Your task to perform on an android device: Go to Android settings Image 0: 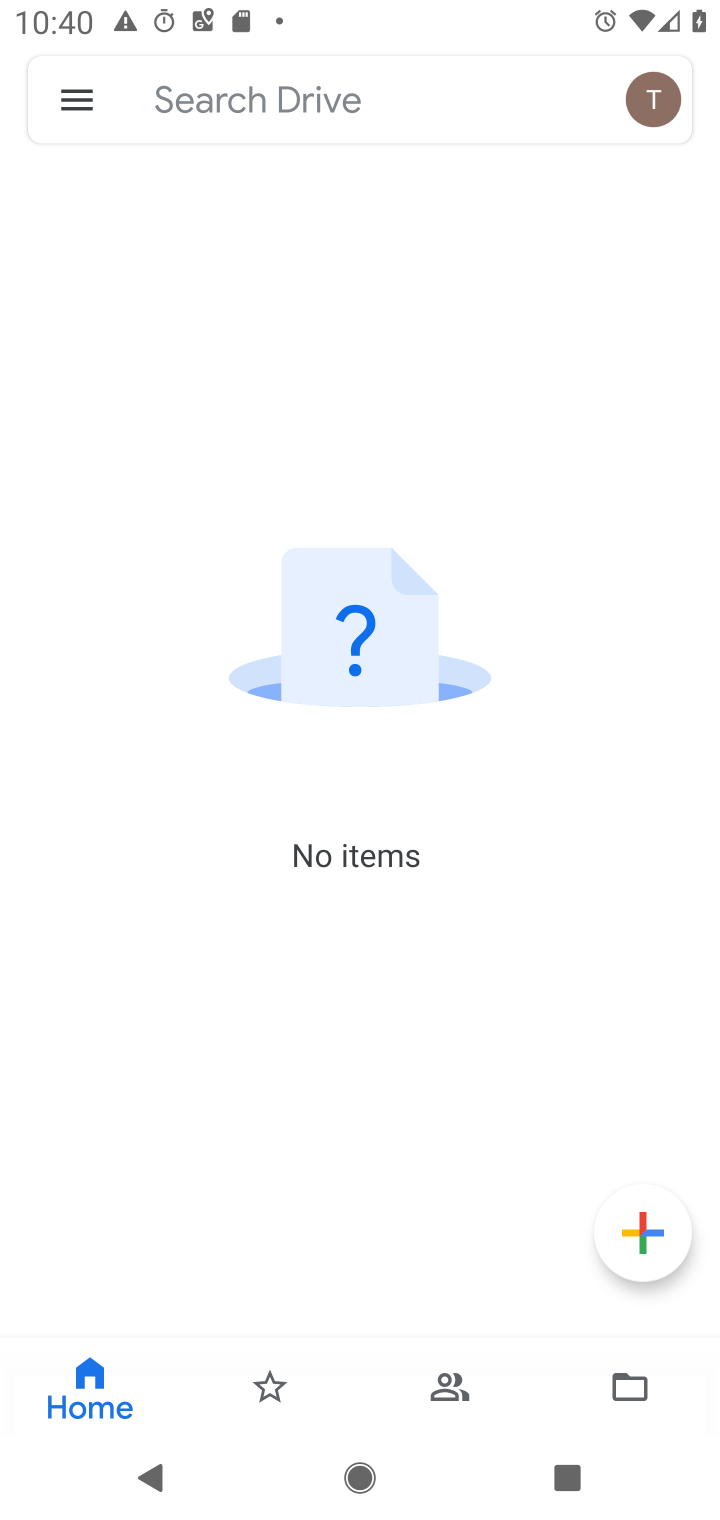
Step 0: press home button
Your task to perform on an android device: Go to Android settings Image 1: 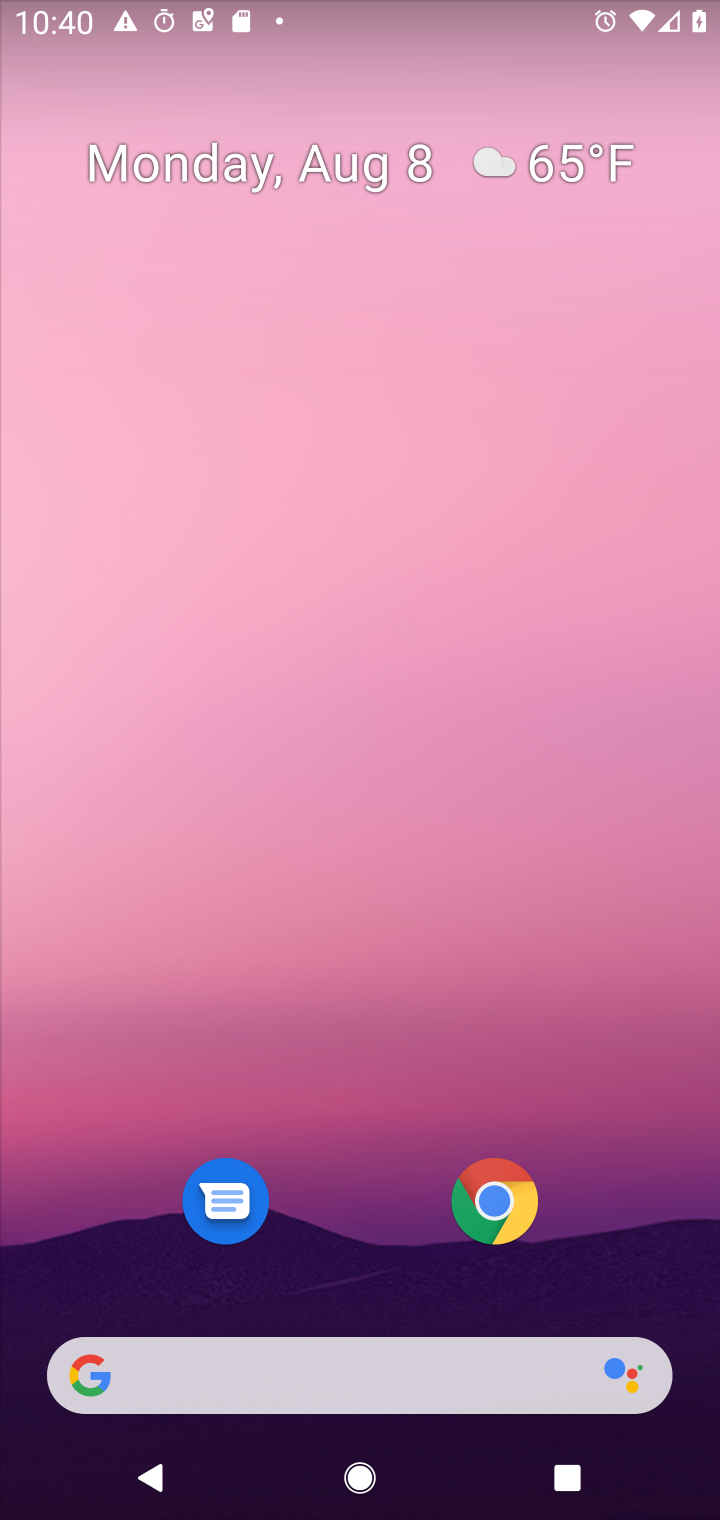
Step 1: drag from (392, 1245) to (312, 355)
Your task to perform on an android device: Go to Android settings Image 2: 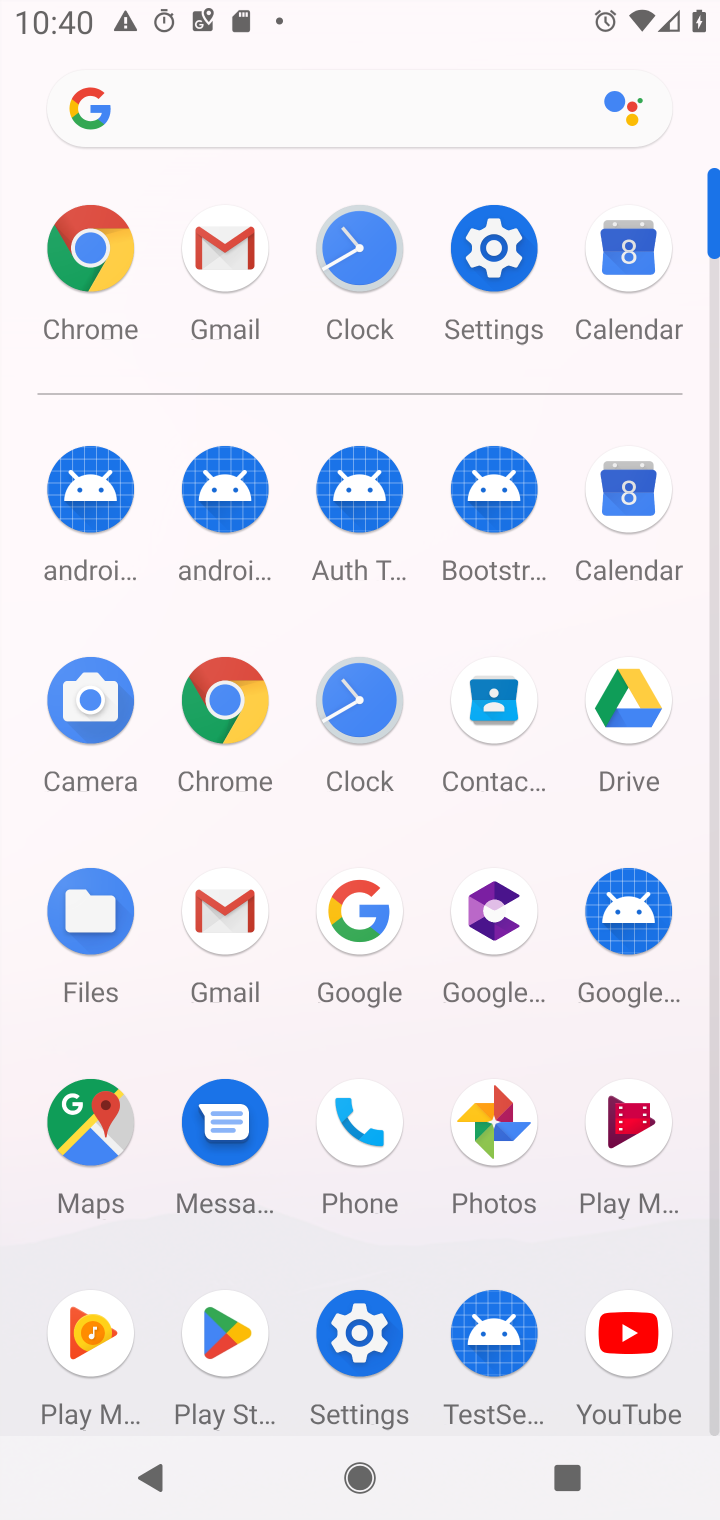
Step 2: click (503, 236)
Your task to perform on an android device: Go to Android settings Image 3: 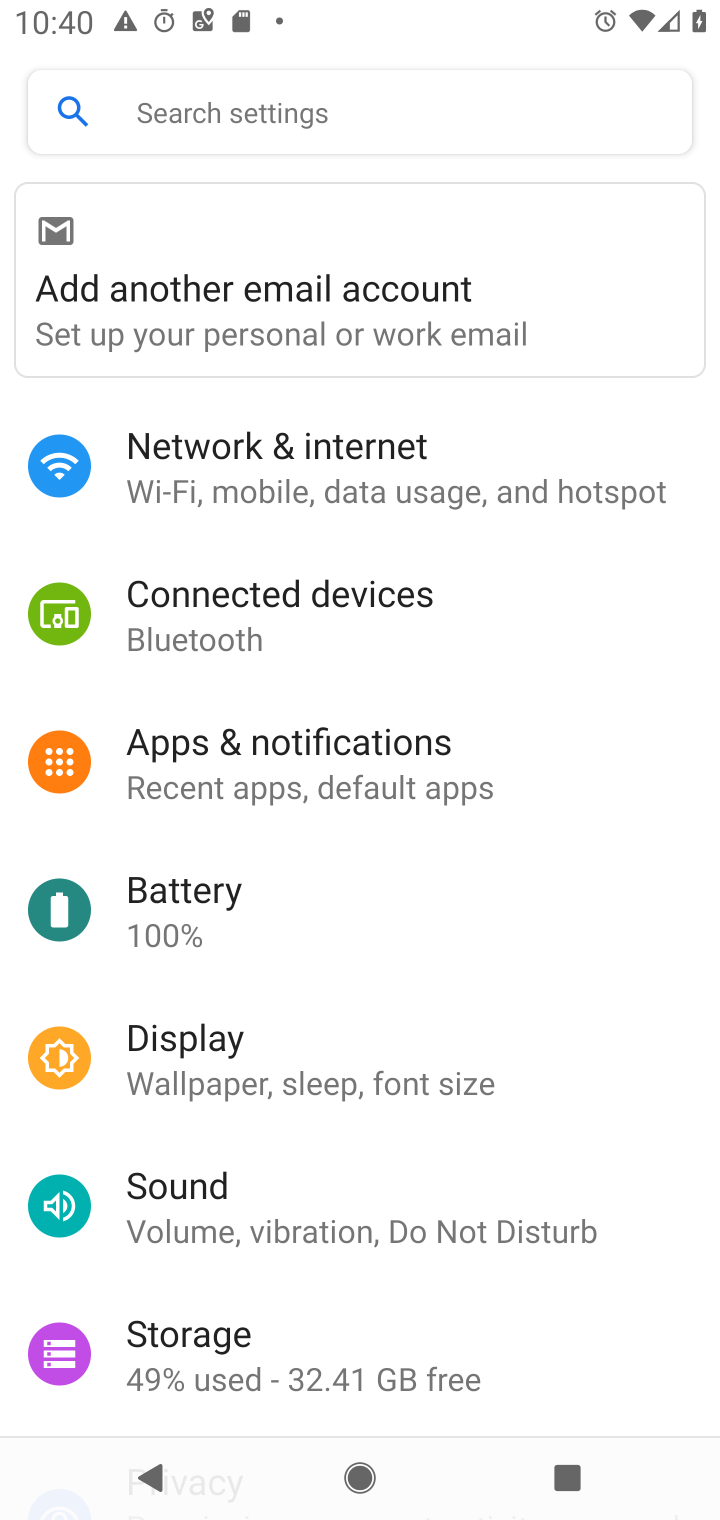
Step 3: drag from (564, 954) to (580, 726)
Your task to perform on an android device: Go to Android settings Image 4: 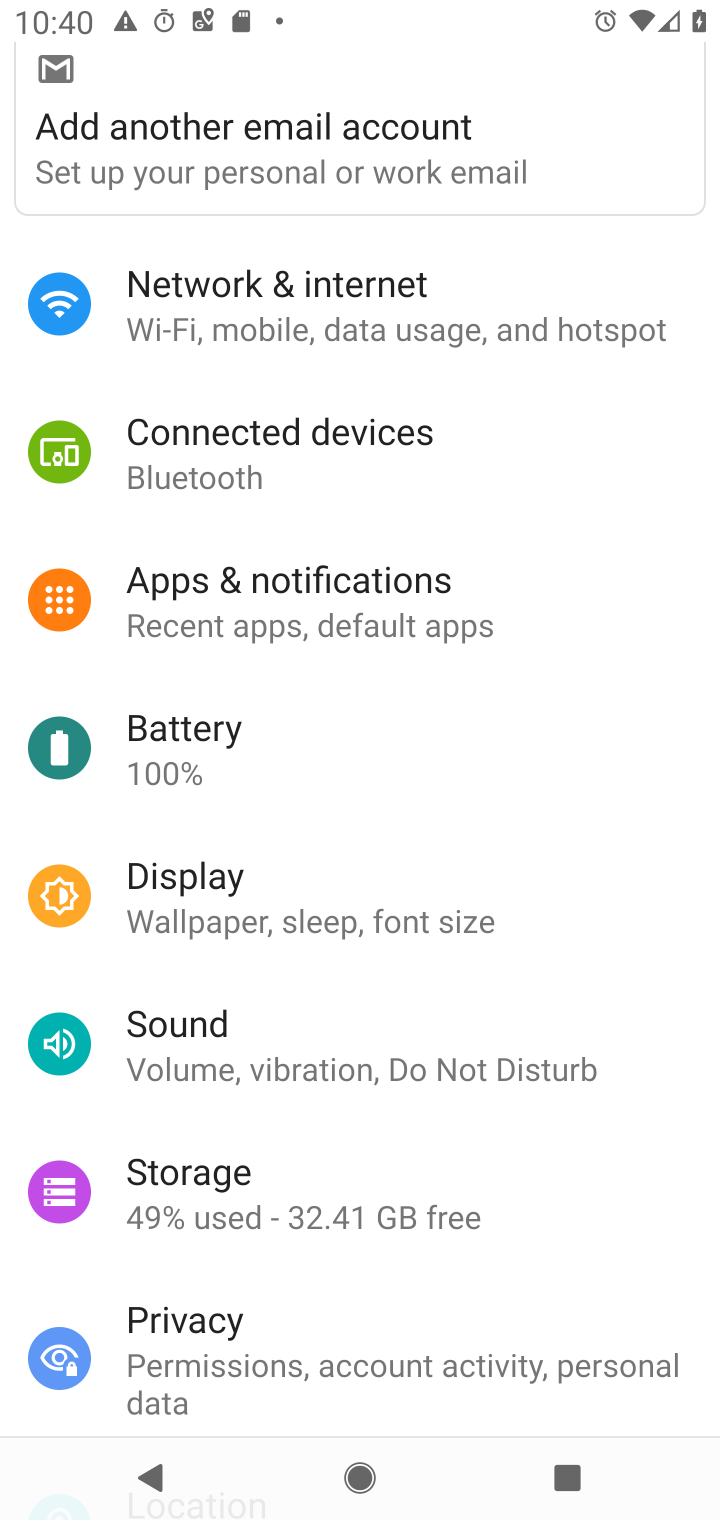
Step 4: drag from (589, 1106) to (610, 729)
Your task to perform on an android device: Go to Android settings Image 5: 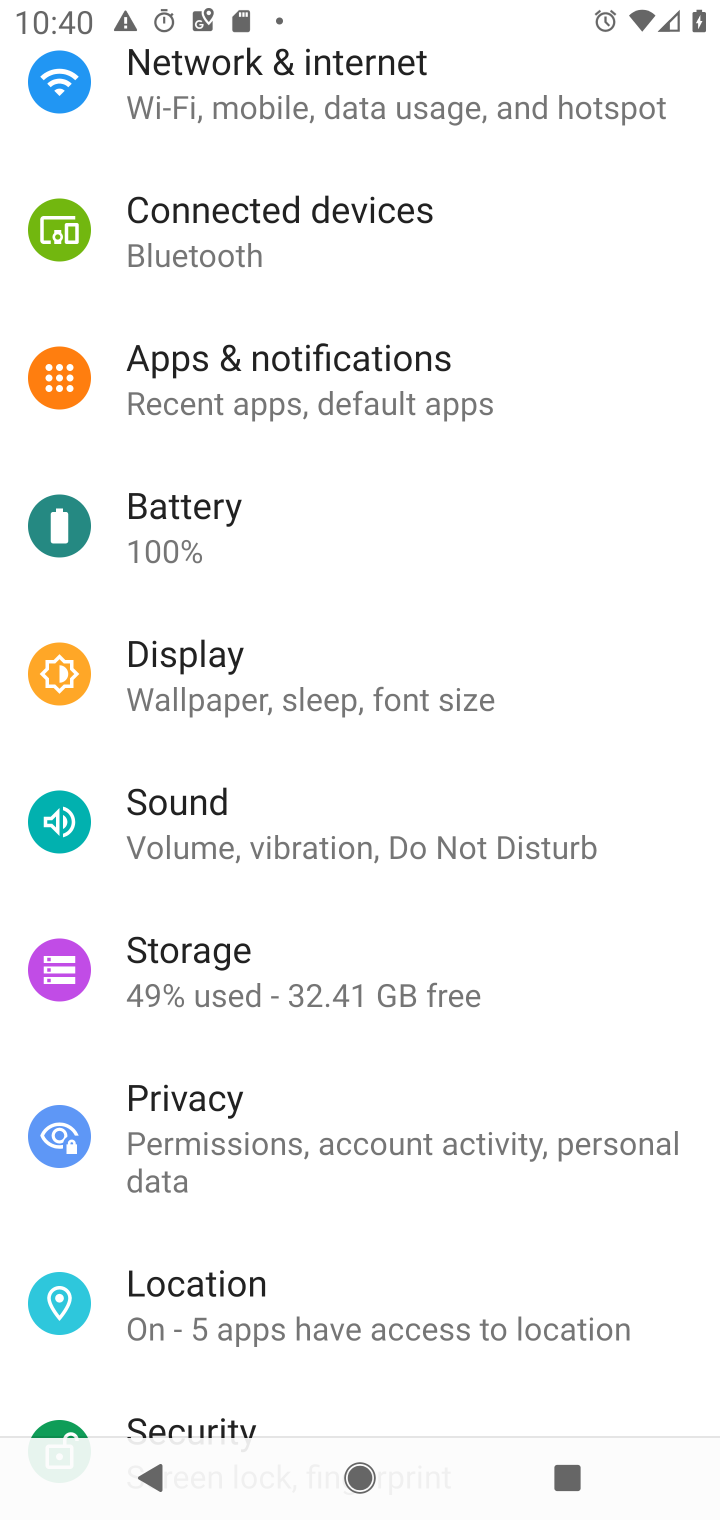
Step 5: drag from (584, 1063) to (603, 668)
Your task to perform on an android device: Go to Android settings Image 6: 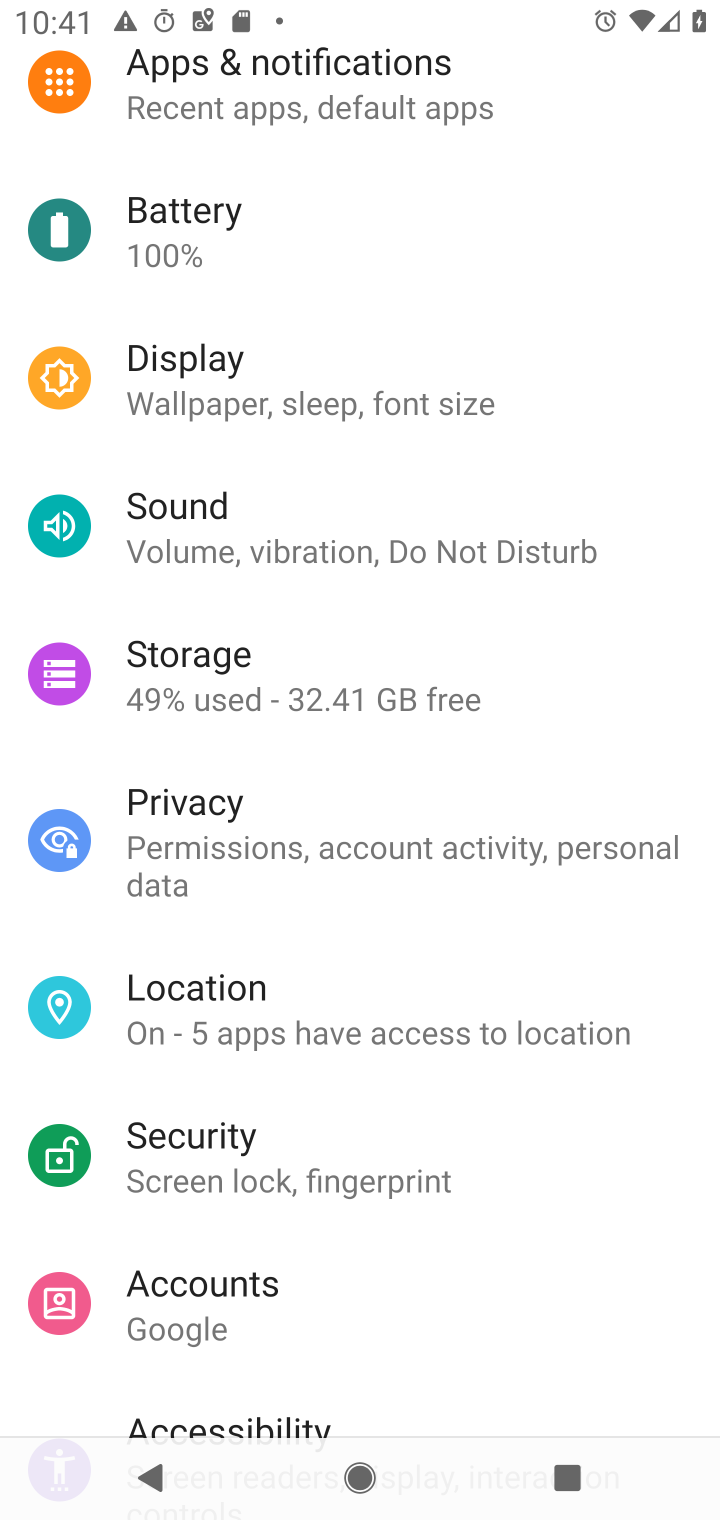
Step 6: drag from (568, 1091) to (590, 716)
Your task to perform on an android device: Go to Android settings Image 7: 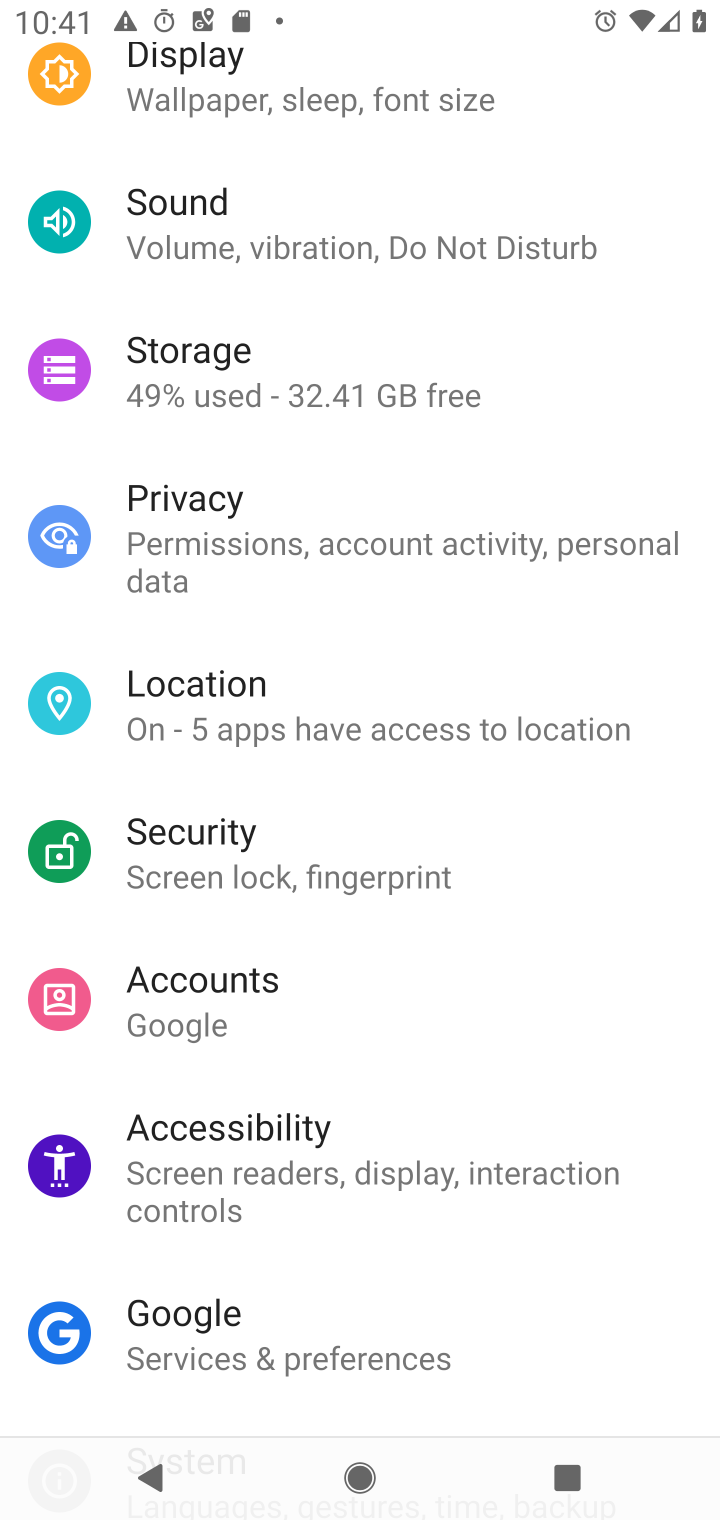
Step 7: drag from (541, 1181) to (578, 553)
Your task to perform on an android device: Go to Android settings Image 8: 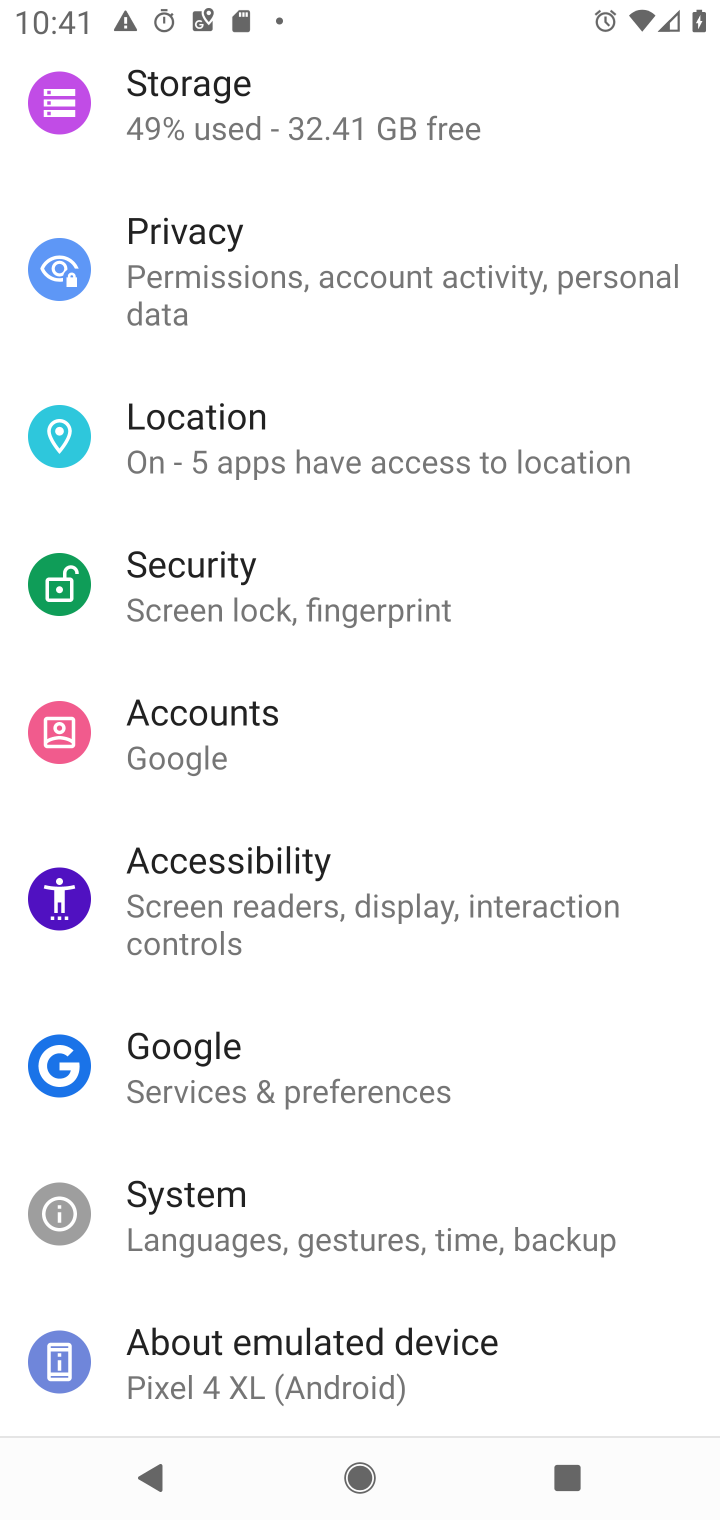
Step 8: click (554, 1214)
Your task to perform on an android device: Go to Android settings Image 9: 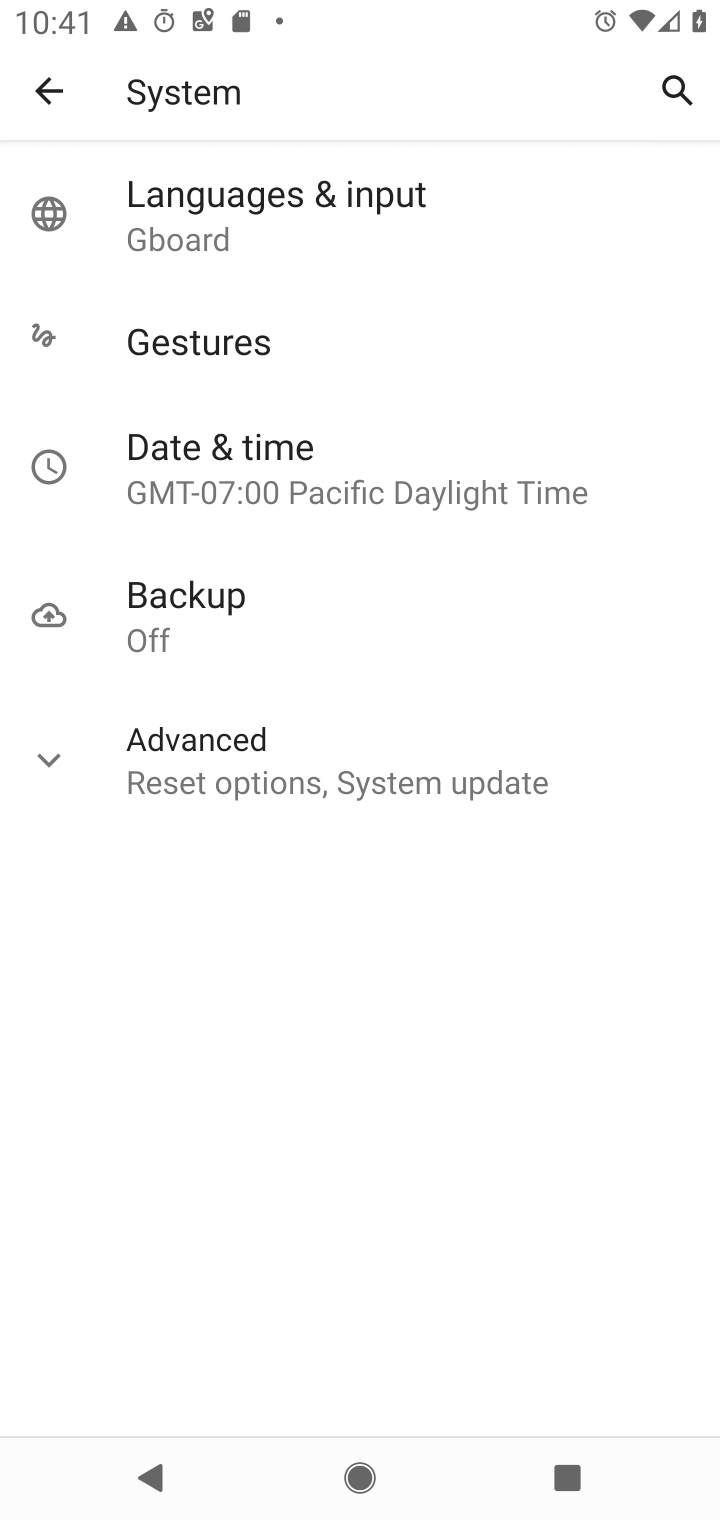
Step 9: click (477, 736)
Your task to perform on an android device: Go to Android settings Image 10: 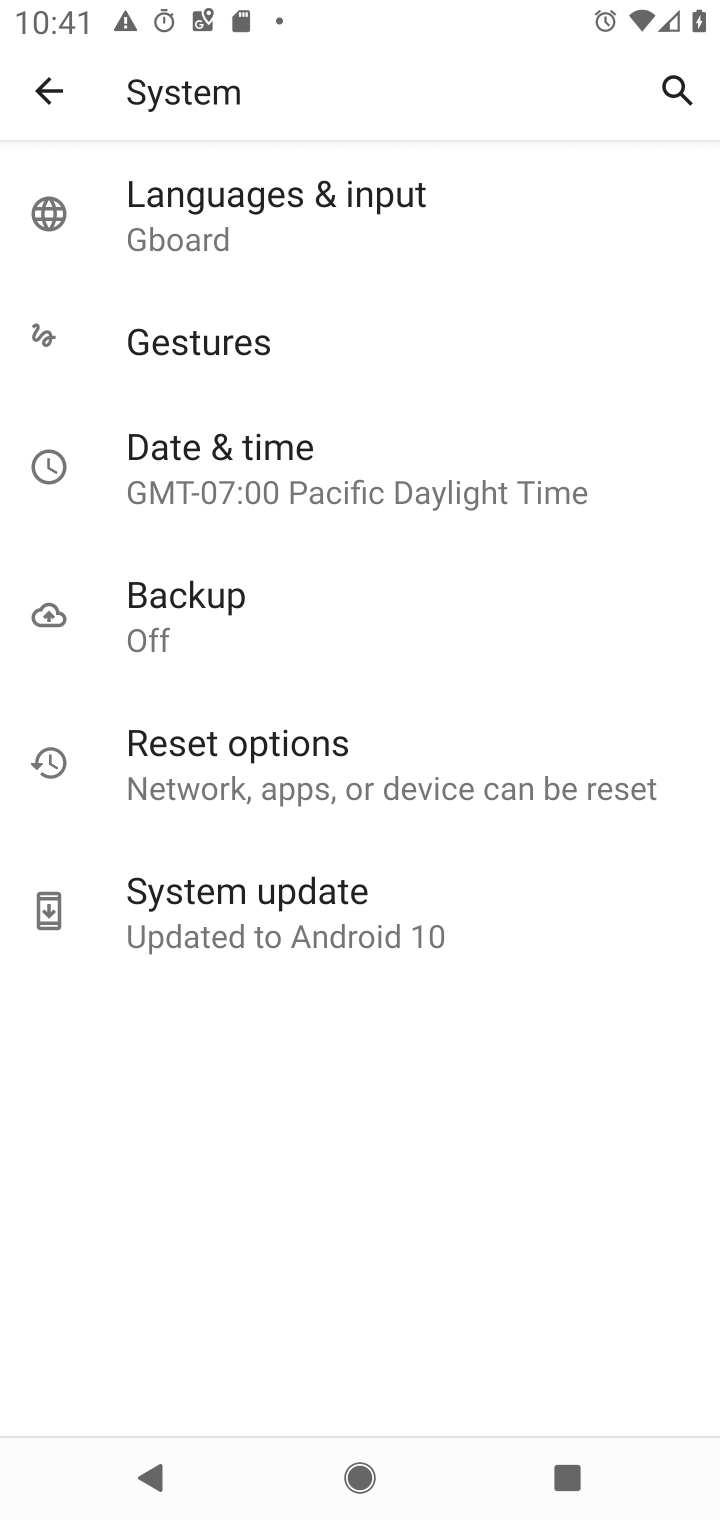
Step 10: task complete